Your task to perform on an android device: Open maps Image 0: 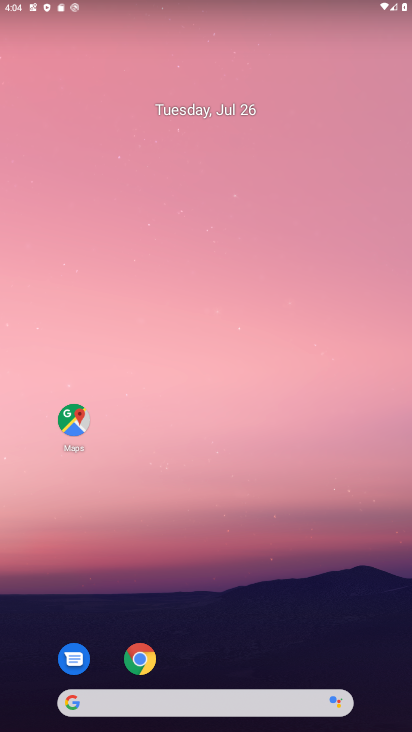
Step 0: drag from (238, 541) to (252, 22)
Your task to perform on an android device: Open maps Image 1: 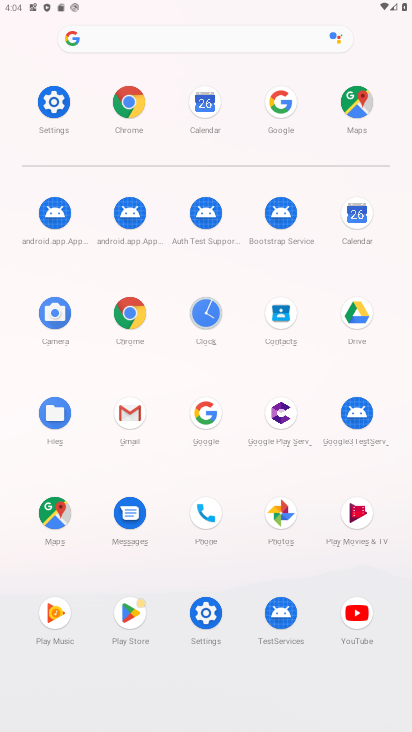
Step 1: click (50, 509)
Your task to perform on an android device: Open maps Image 2: 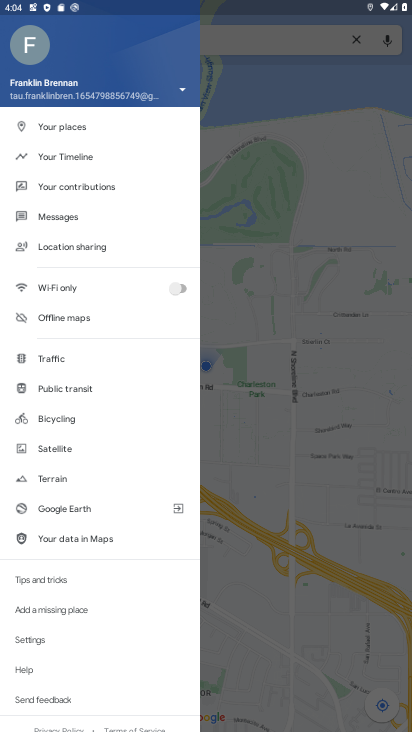
Step 2: task complete